Your task to perform on an android device: Search for Mexican restaurants on Maps Image 0: 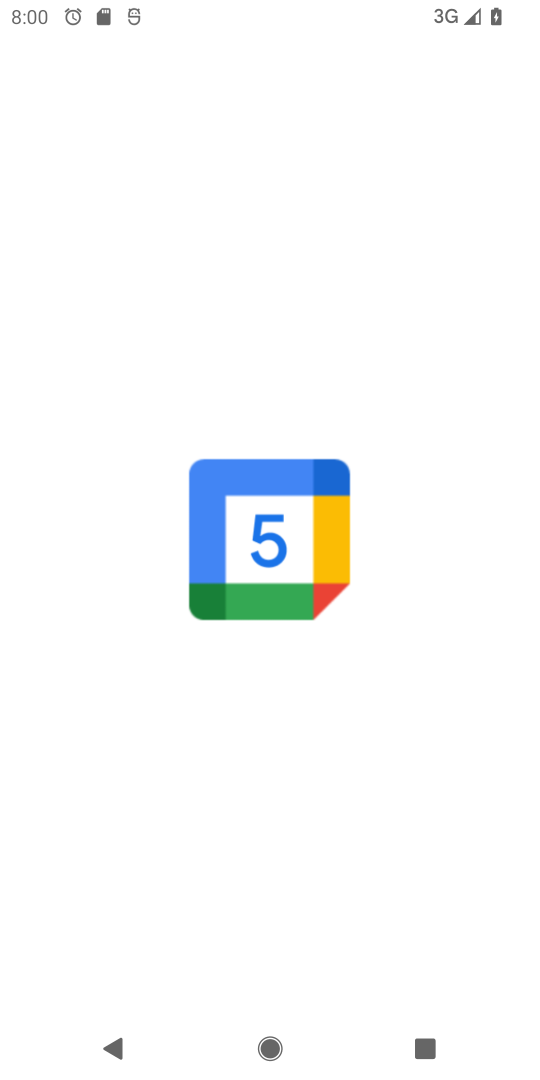
Step 0: press home button
Your task to perform on an android device: Search for Mexican restaurants on Maps Image 1: 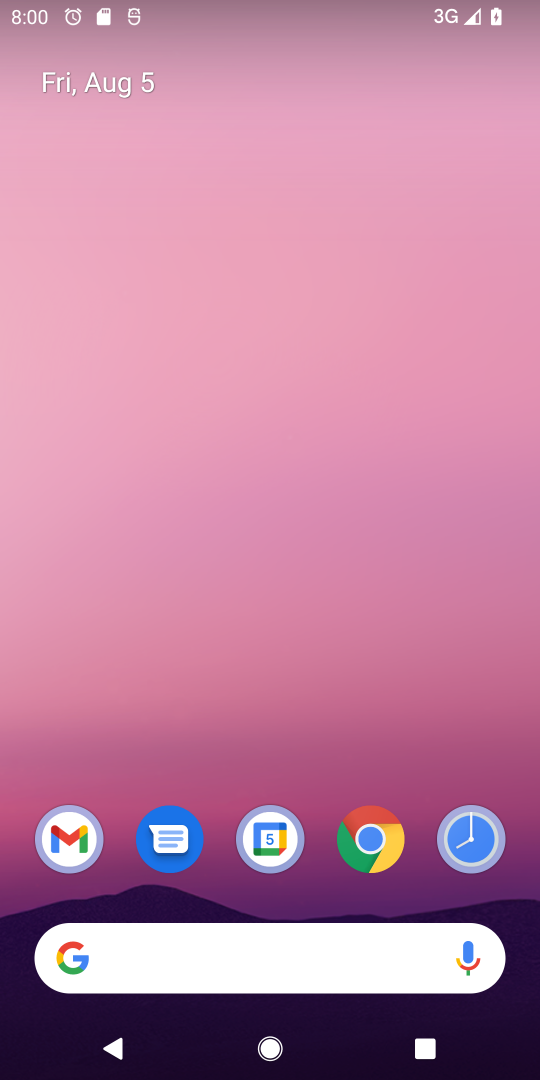
Step 1: drag from (270, 739) to (313, 159)
Your task to perform on an android device: Search for Mexican restaurants on Maps Image 2: 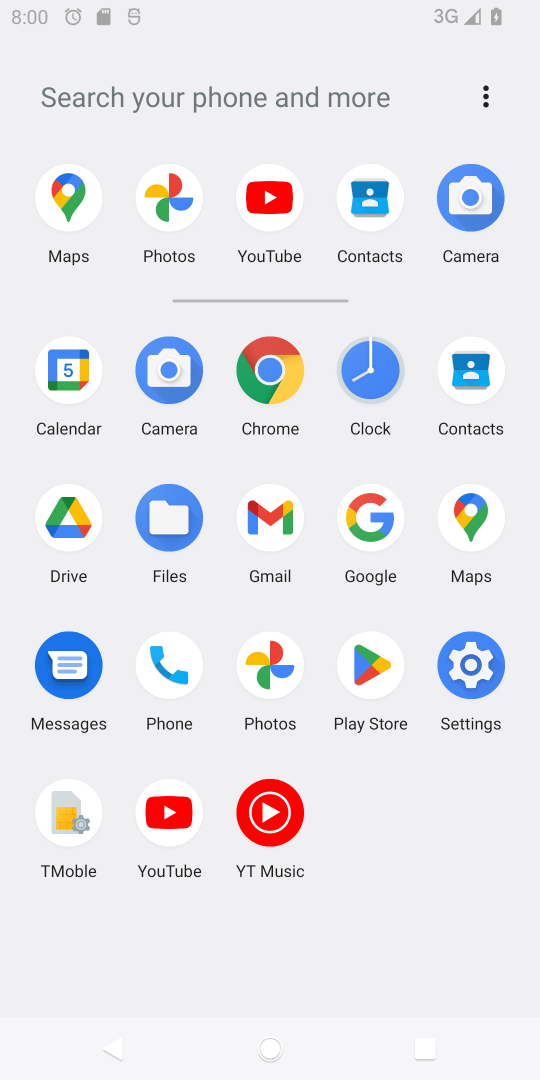
Step 2: click (453, 503)
Your task to perform on an android device: Search for Mexican restaurants on Maps Image 3: 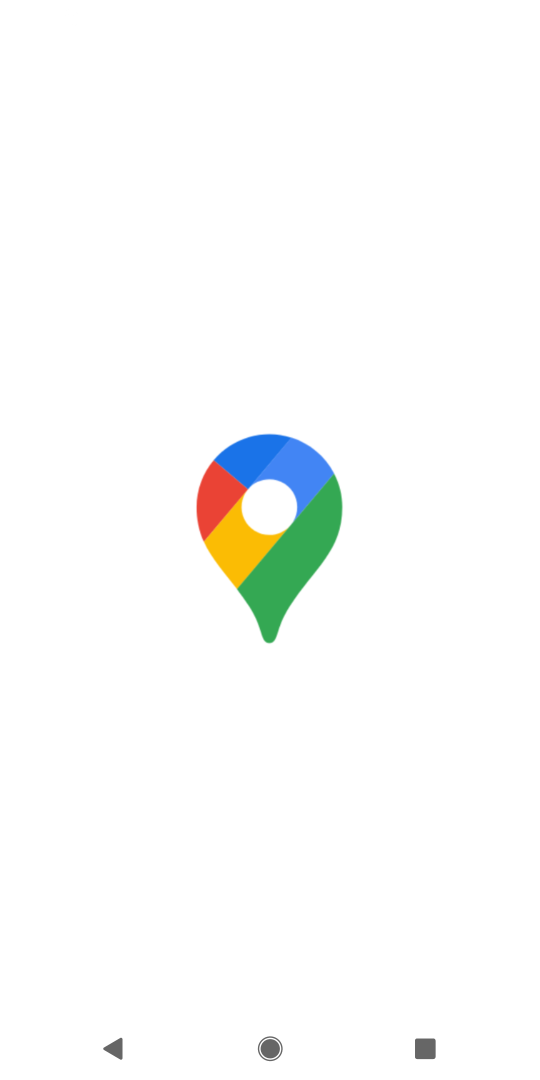
Step 3: task complete